Your task to perform on an android device: Open calendar and show me the third week of next month Image 0: 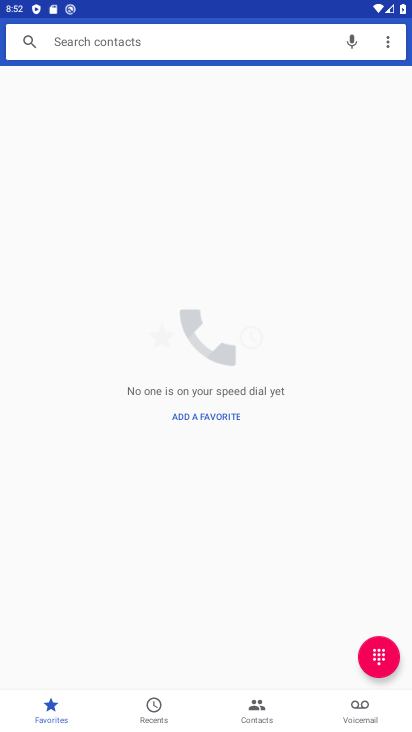
Step 0: press home button
Your task to perform on an android device: Open calendar and show me the third week of next month Image 1: 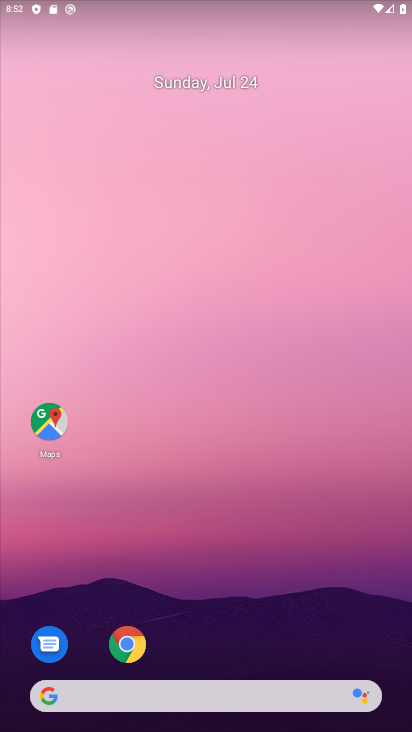
Step 1: drag from (273, 651) to (236, 84)
Your task to perform on an android device: Open calendar and show me the third week of next month Image 2: 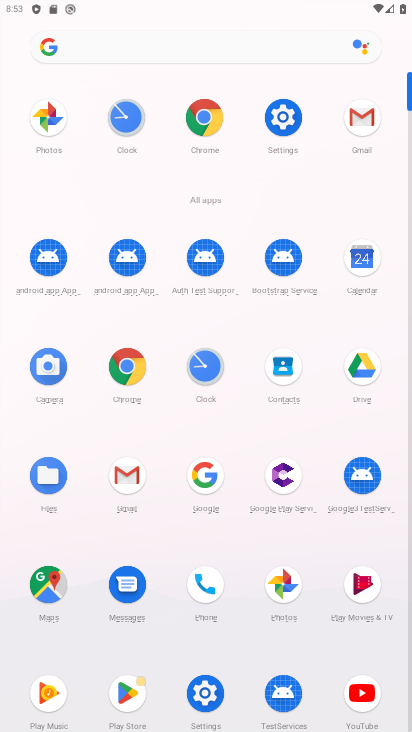
Step 2: click (343, 252)
Your task to perform on an android device: Open calendar and show me the third week of next month Image 3: 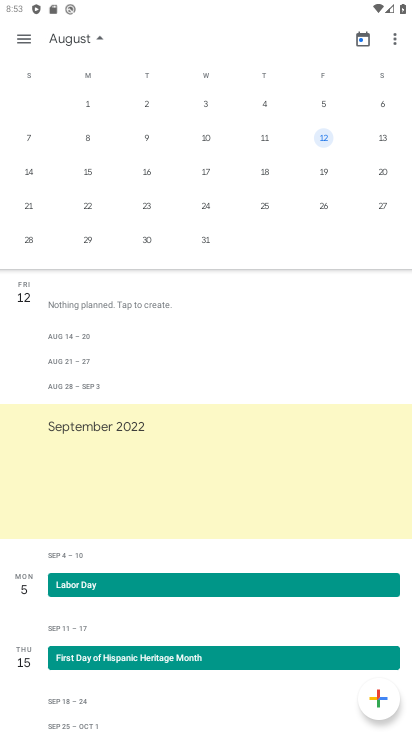
Step 3: click (323, 166)
Your task to perform on an android device: Open calendar and show me the third week of next month Image 4: 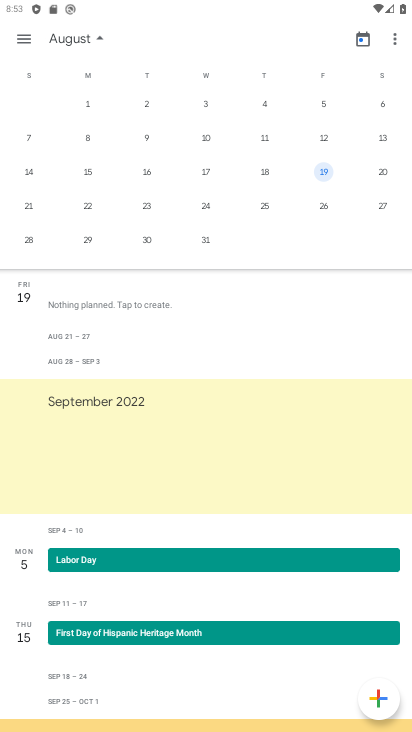
Step 4: task complete